Your task to perform on an android device: Go to battery settings Image 0: 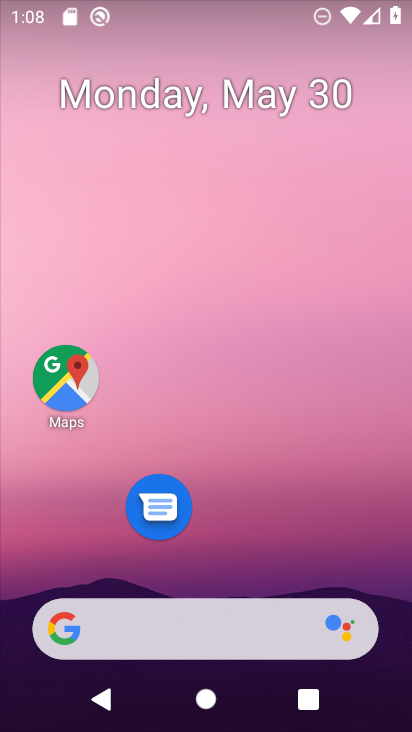
Step 0: drag from (276, 507) to (302, 83)
Your task to perform on an android device: Go to battery settings Image 1: 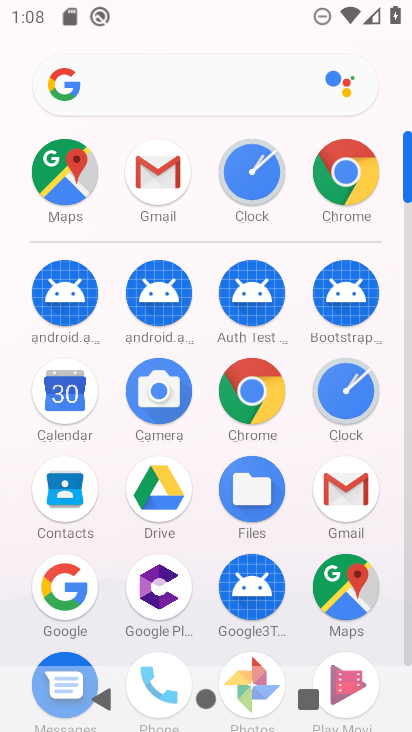
Step 1: drag from (206, 354) to (234, 68)
Your task to perform on an android device: Go to battery settings Image 2: 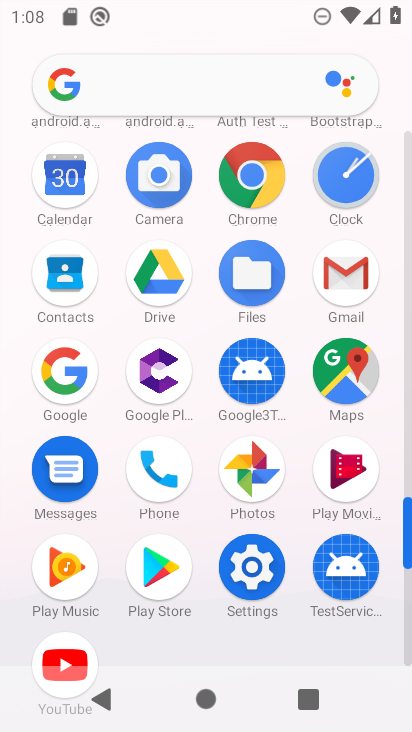
Step 2: click (256, 561)
Your task to perform on an android device: Go to battery settings Image 3: 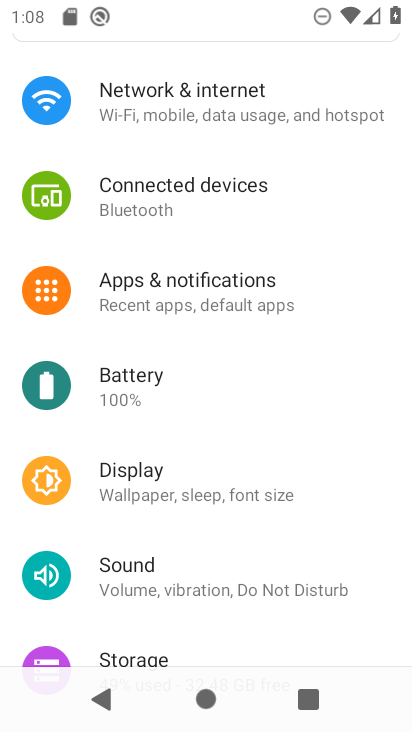
Step 3: click (127, 389)
Your task to perform on an android device: Go to battery settings Image 4: 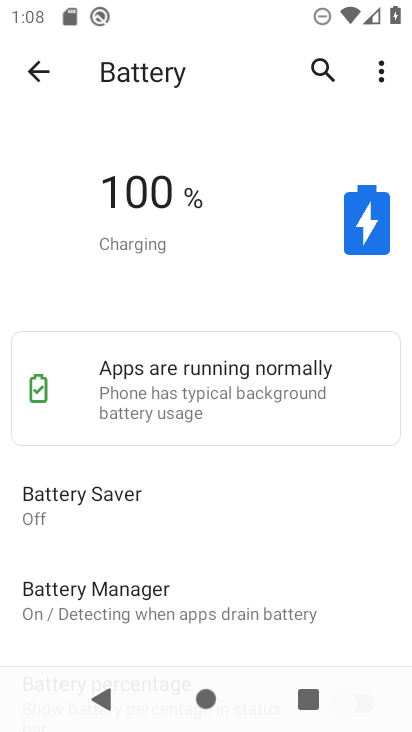
Step 4: task complete